Your task to perform on an android device: change the clock display to digital Image 0: 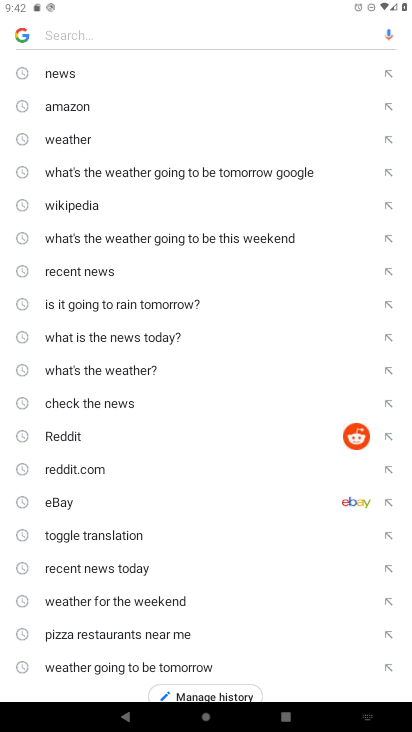
Step 0: press home button
Your task to perform on an android device: change the clock display to digital Image 1: 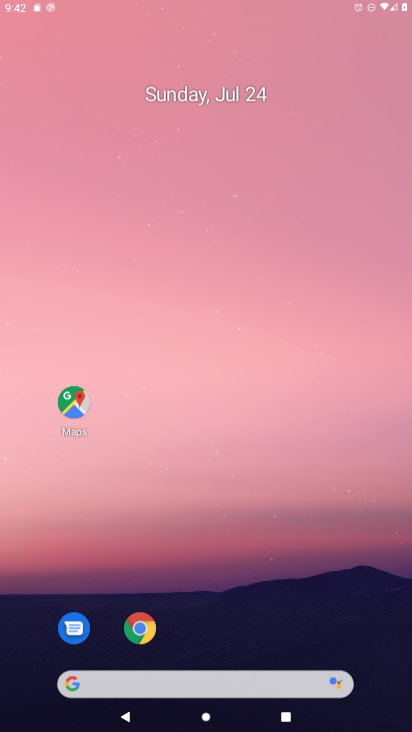
Step 1: drag from (408, 662) to (212, 64)
Your task to perform on an android device: change the clock display to digital Image 2: 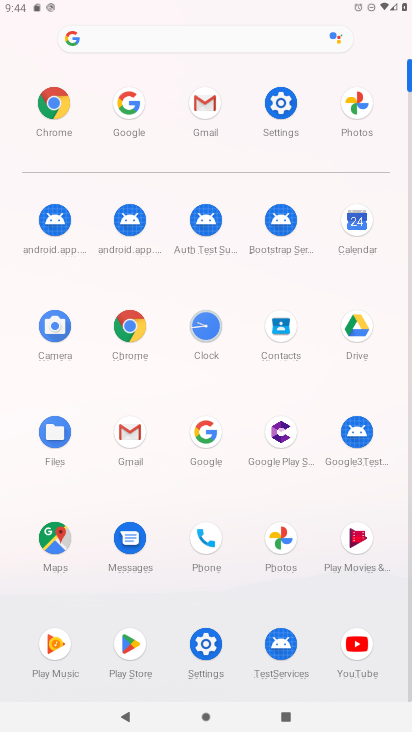
Step 2: click (210, 321)
Your task to perform on an android device: change the clock display to digital Image 3: 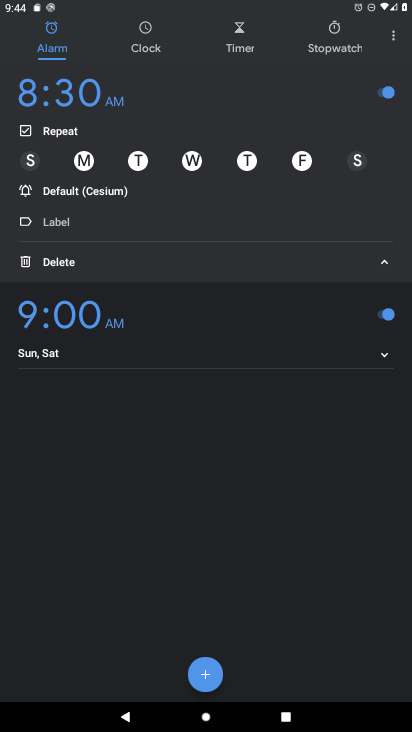
Step 3: click (393, 35)
Your task to perform on an android device: change the clock display to digital Image 4: 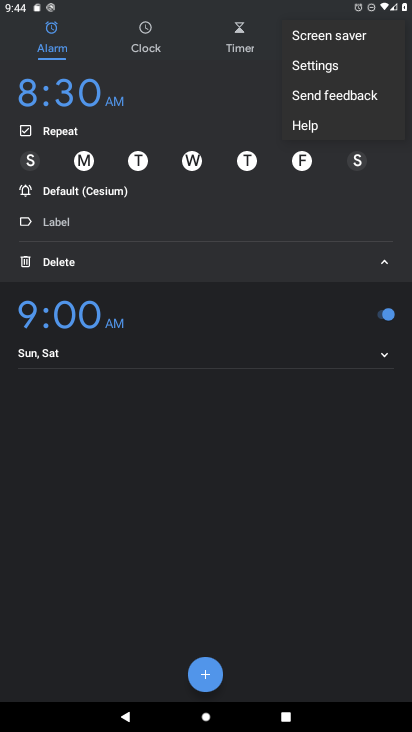
Step 4: click (305, 68)
Your task to perform on an android device: change the clock display to digital Image 5: 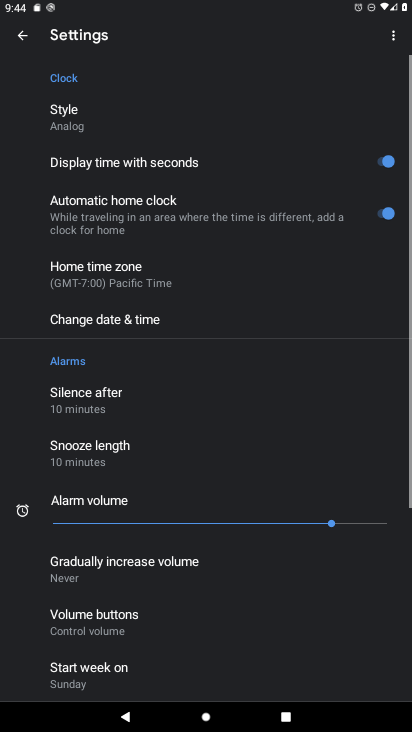
Step 5: click (67, 117)
Your task to perform on an android device: change the clock display to digital Image 6: 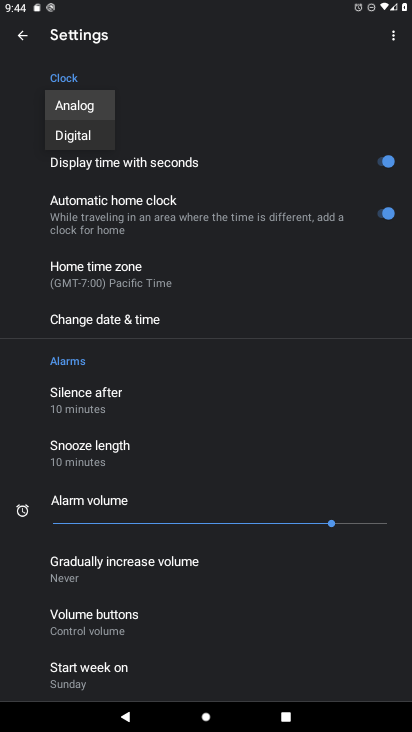
Step 6: click (92, 135)
Your task to perform on an android device: change the clock display to digital Image 7: 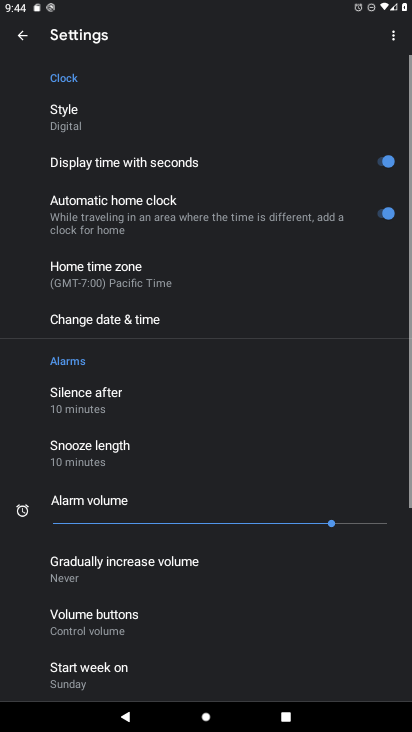
Step 7: task complete